Your task to perform on an android device: What's on my calendar today? Image 0: 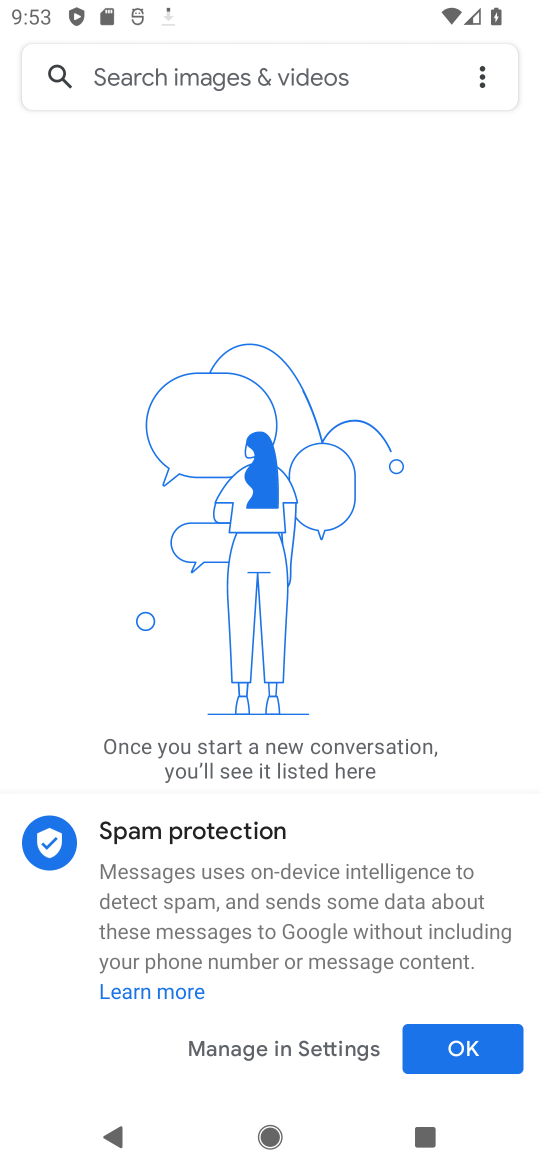
Step 0: press home button
Your task to perform on an android device: What's on my calendar today? Image 1: 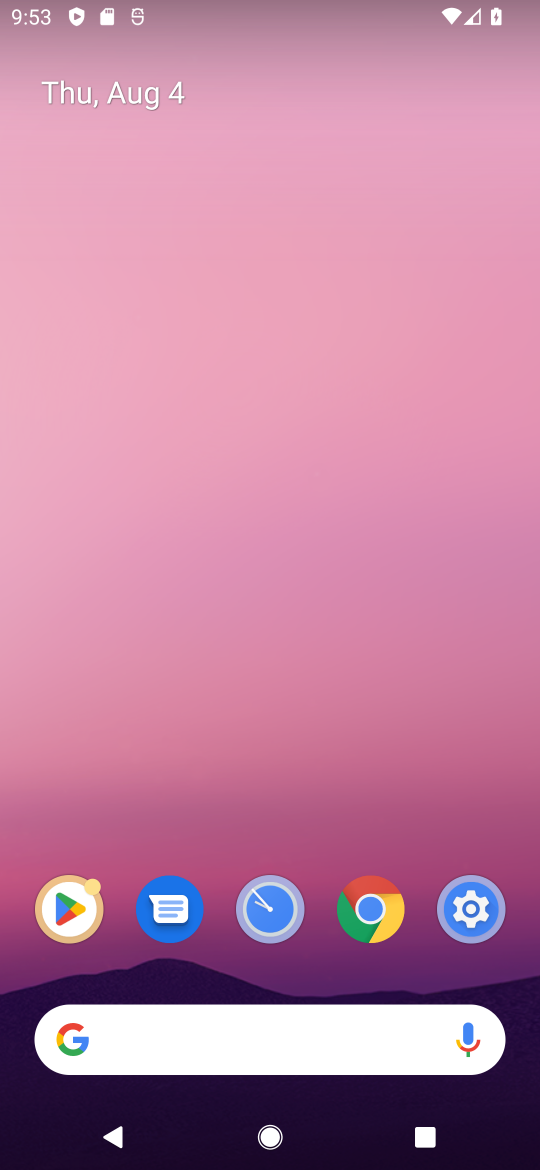
Step 1: drag from (238, 830) to (228, 8)
Your task to perform on an android device: What's on my calendar today? Image 2: 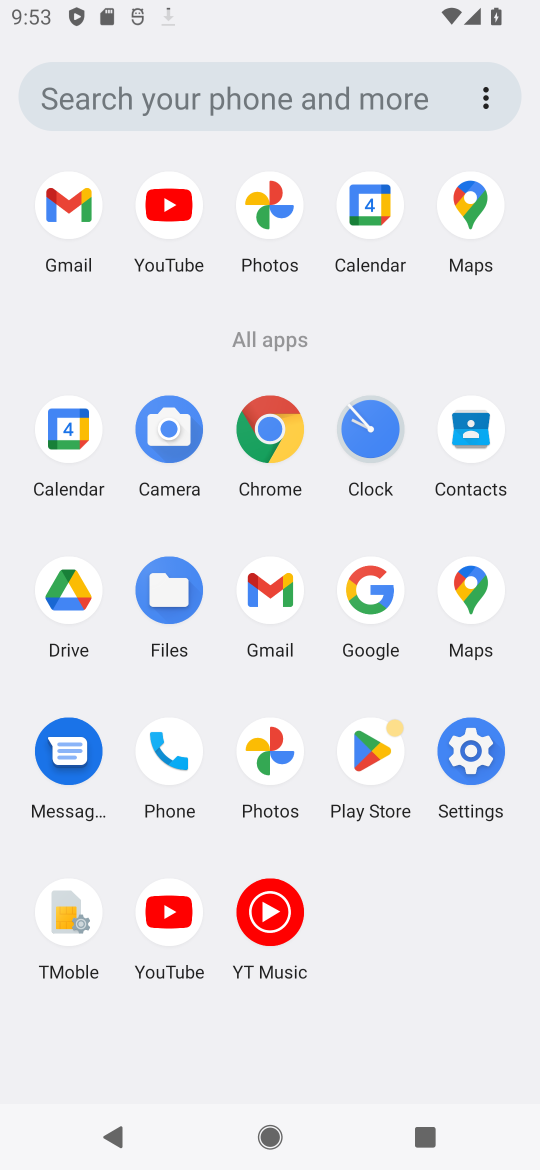
Step 2: click (368, 216)
Your task to perform on an android device: What's on my calendar today? Image 3: 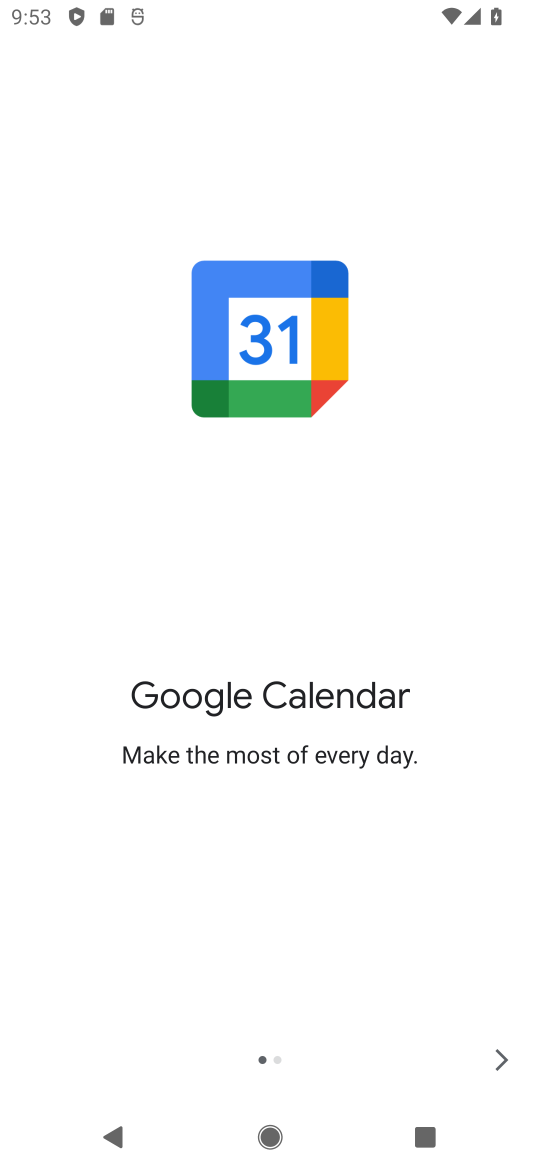
Step 3: click (515, 1052)
Your task to perform on an android device: What's on my calendar today? Image 4: 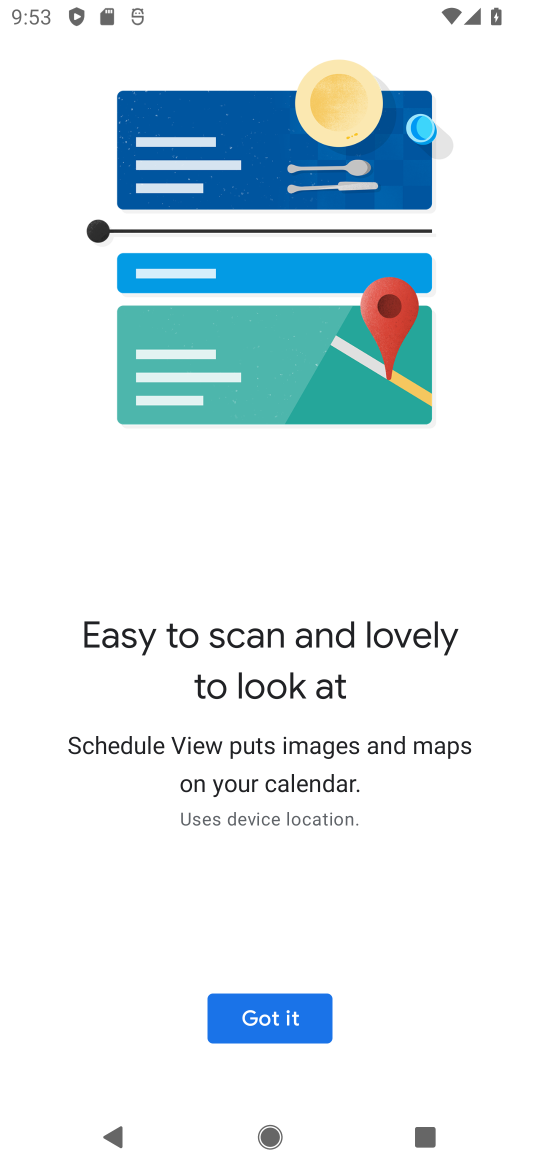
Step 4: click (249, 1019)
Your task to perform on an android device: What's on my calendar today? Image 5: 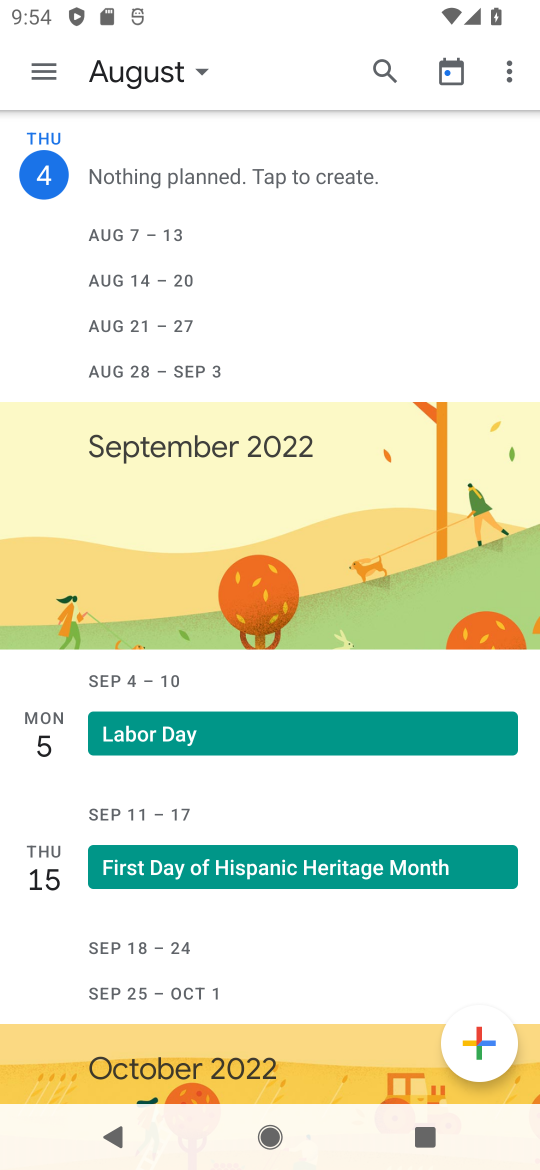
Step 5: click (167, 179)
Your task to perform on an android device: What's on my calendar today? Image 6: 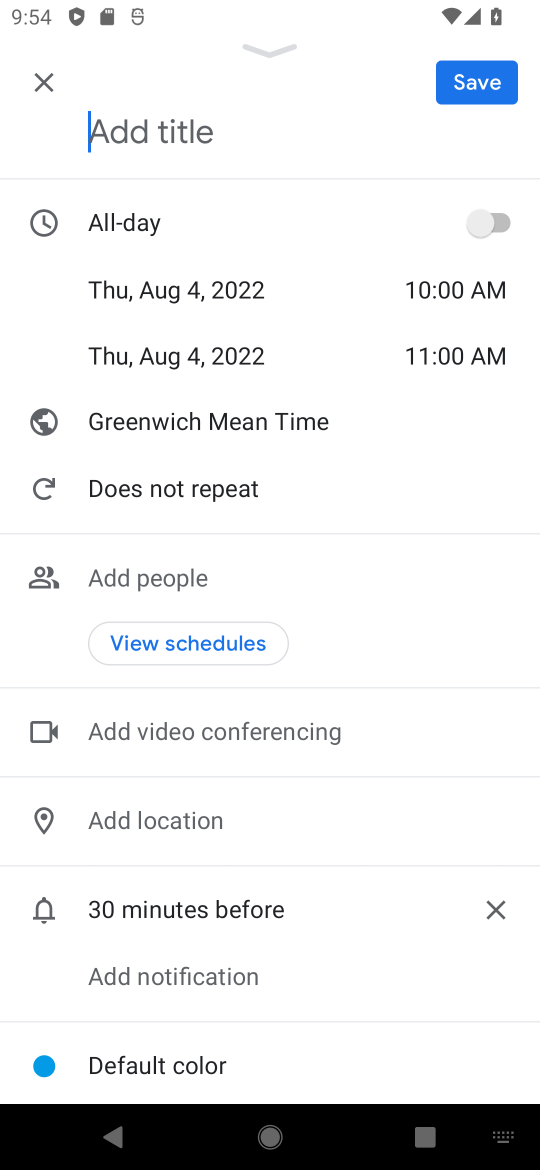
Step 6: drag from (291, 715) to (260, 328)
Your task to perform on an android device: What's on my calendar today? Image 7: 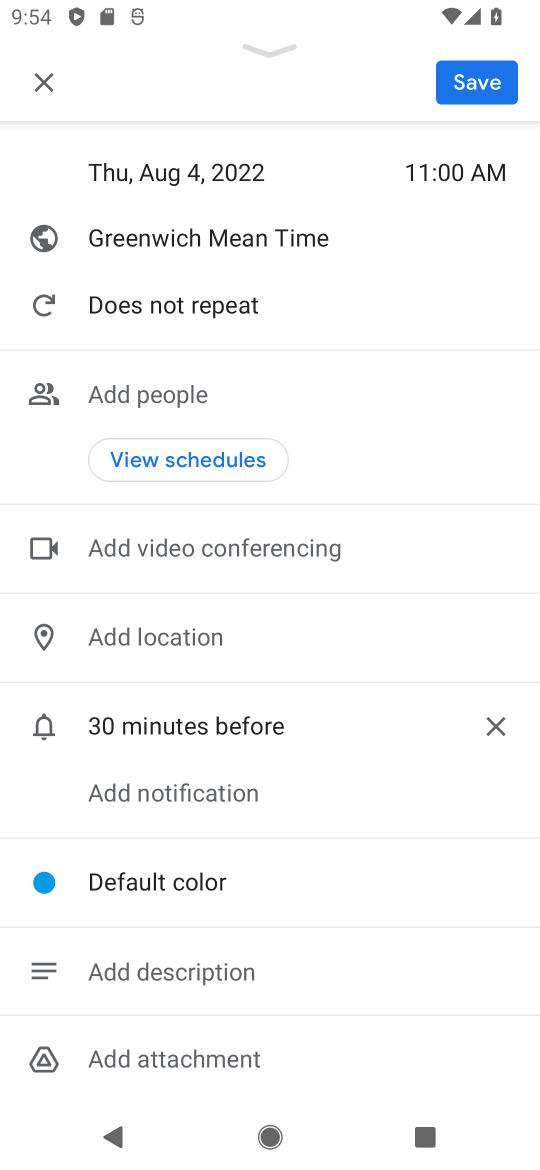
Step 7: click (30, 74)
Your task to perform on an android device: What's on my calendar today? Image 8: 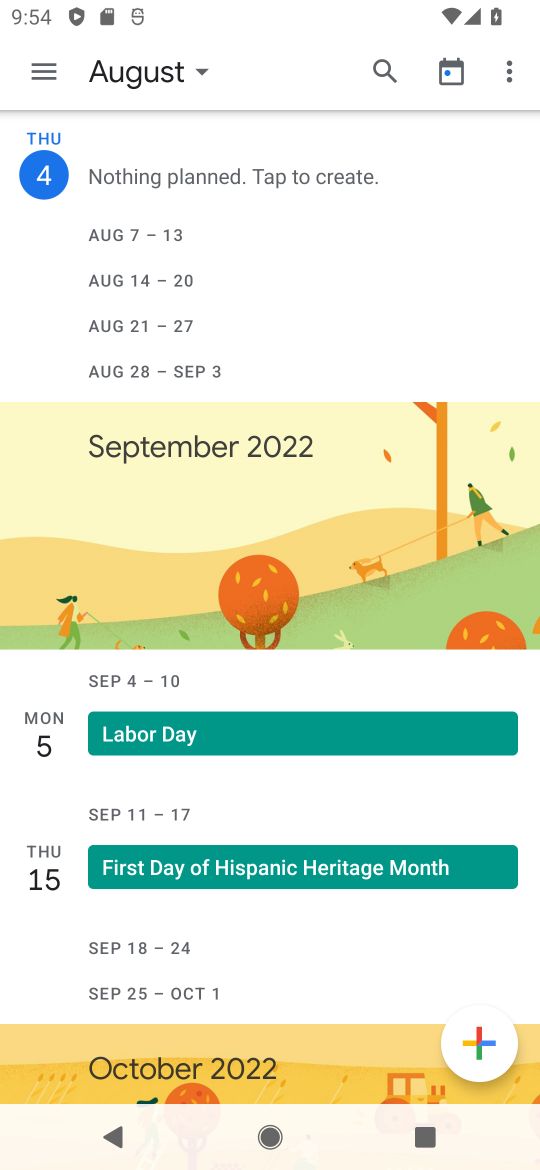
Step 8: click (40, 75)
Your task to perform on an android device: What's on my calendar today? Image 9: 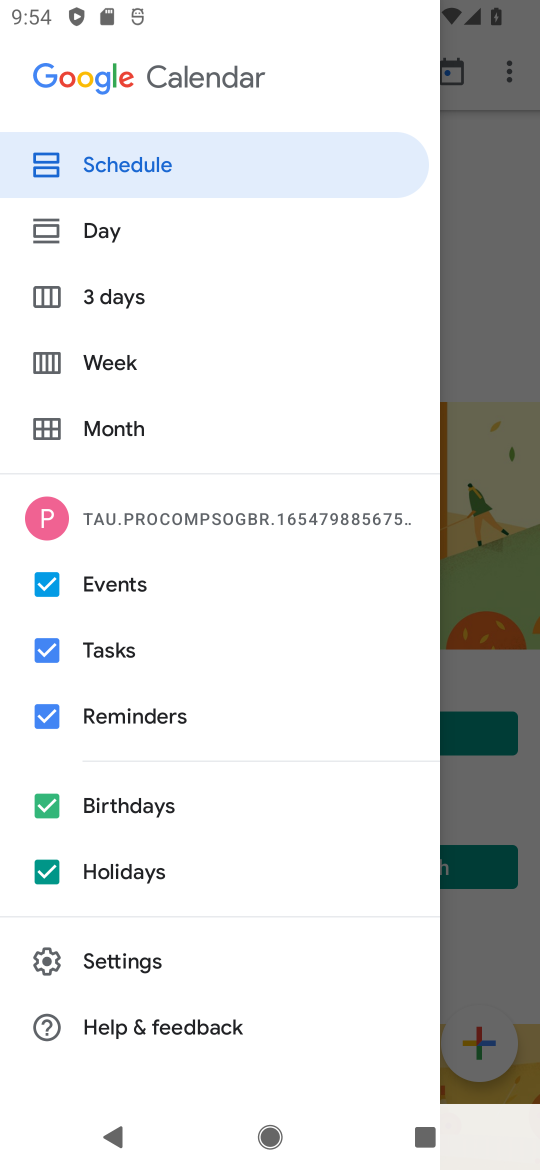
Step 9: click (89, 246)
Your task to perform on an android device: What's on my calendar today? Image 10: 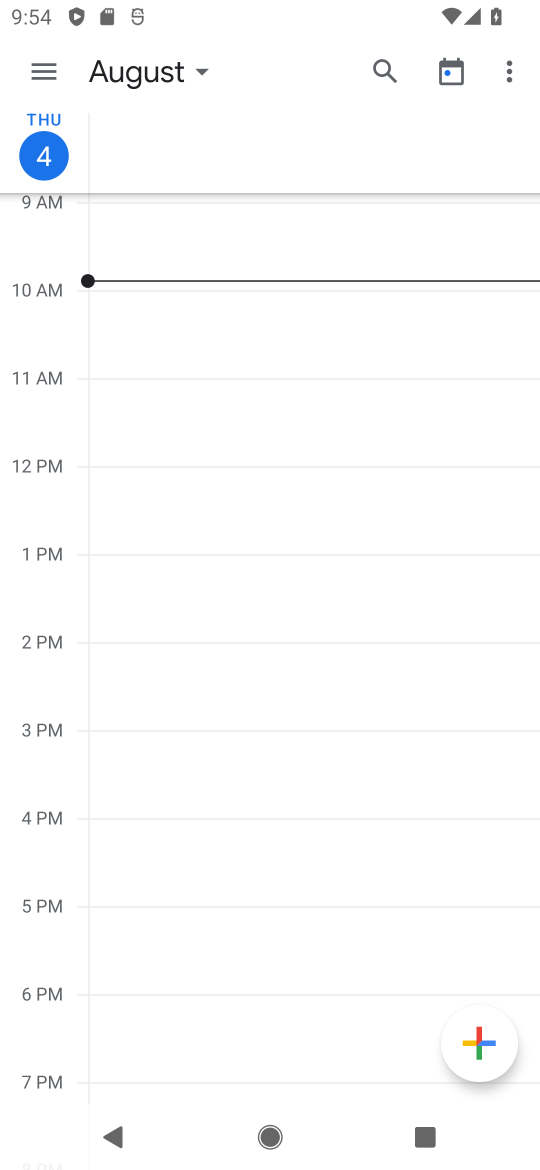
Step 10: drag from (311, 592) to (302, 307)
Your task to perform on an android device: What's on my calendar today? Image 11: 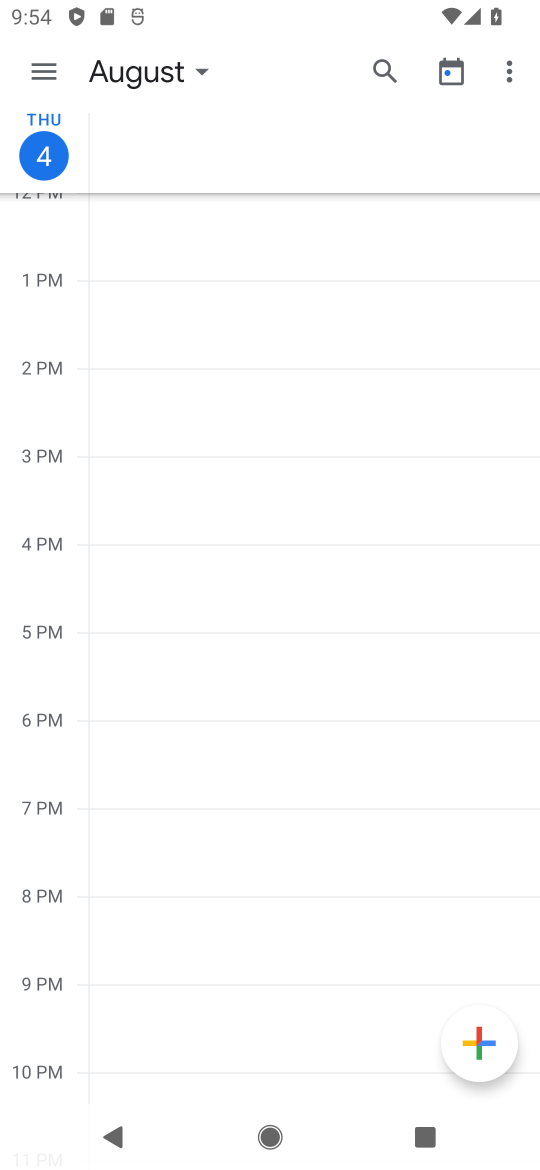
Step 11: drag from (301, 306) to (386, 1109)
Your task to perform on an android device: What's on my calendar today? Image 12: 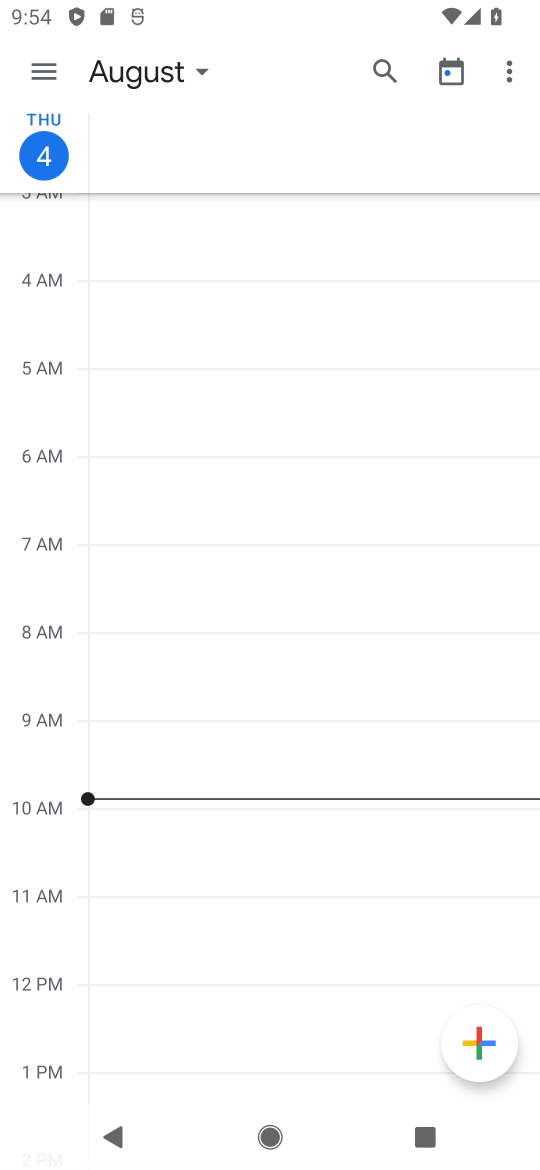
Step 12: click (285, 791)
Your task to perform on an android device: What's on my calendar today? Image 13: 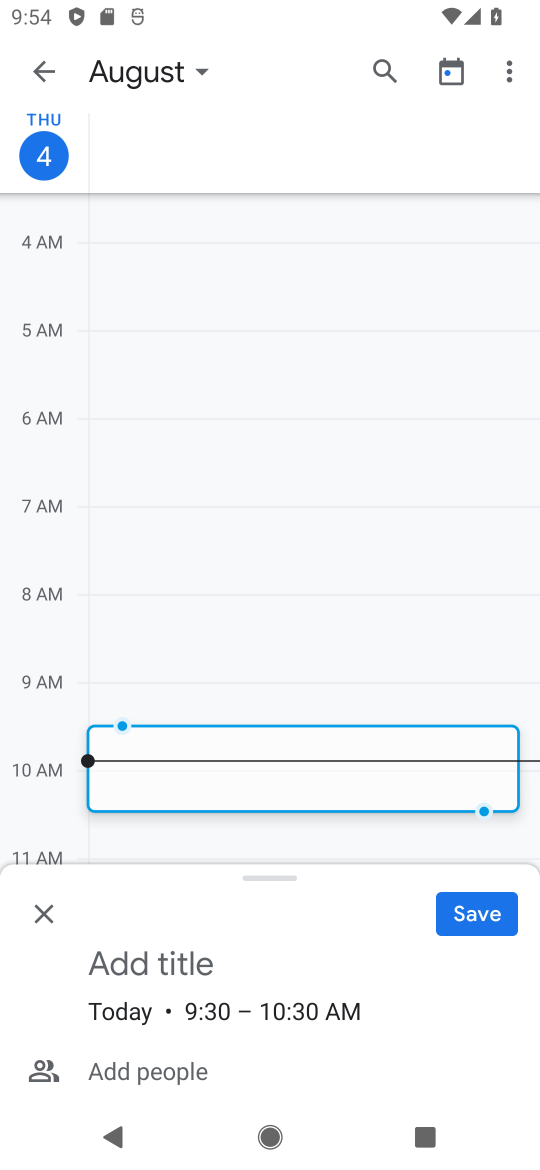
Step 13: click (259, 705)
Your task to perform on an android device: What's on my calendar today? Image 14: 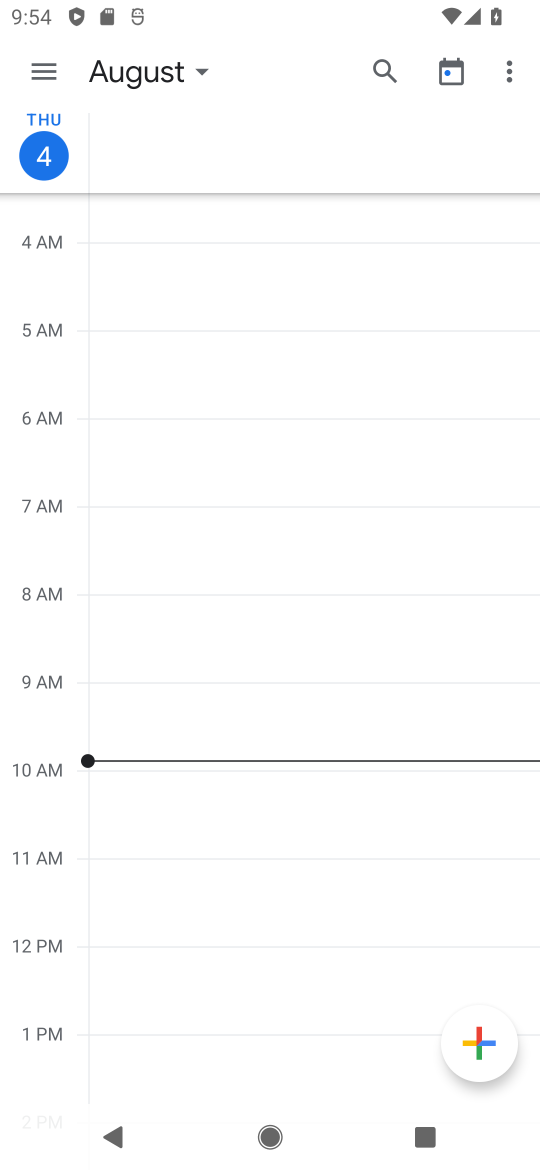
Step 14: task complete